Your task to perform on an android device: stop showing notifications on the lock screen Image 0: 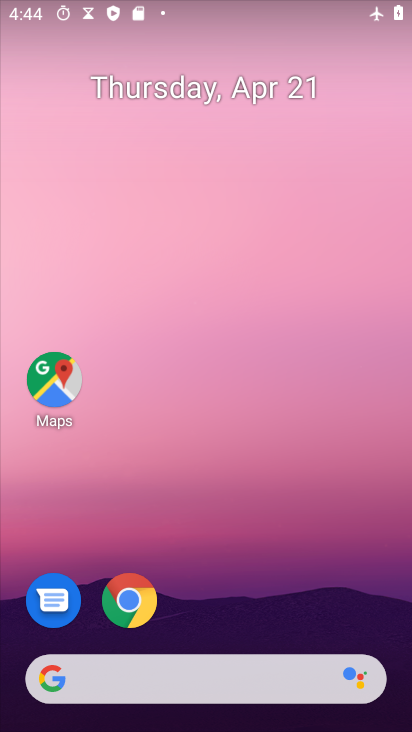
Step 0: drag from (256, 575) to (233, 74)
Your task to perform on an android device: stop showing notifications on the lock screen Image 1: 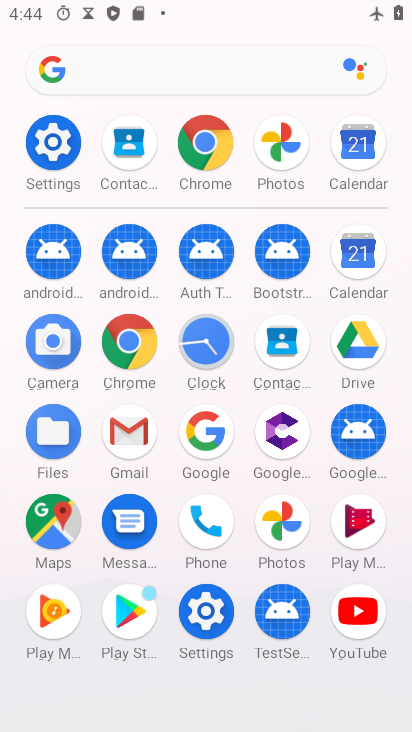
Step 1: click (53, 140)
Your task to perform on an android device: stop showing notifications on the lock screen Image 2: 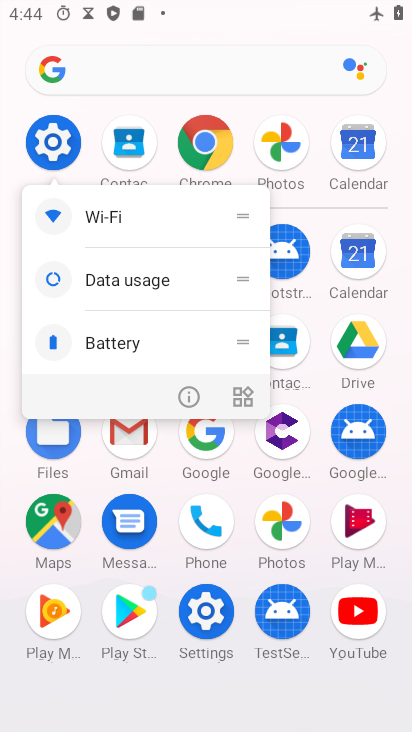
Step 2: click (53, 140)
Your task to perform on an android device: stop showing notifications on the lock screen Image 3: 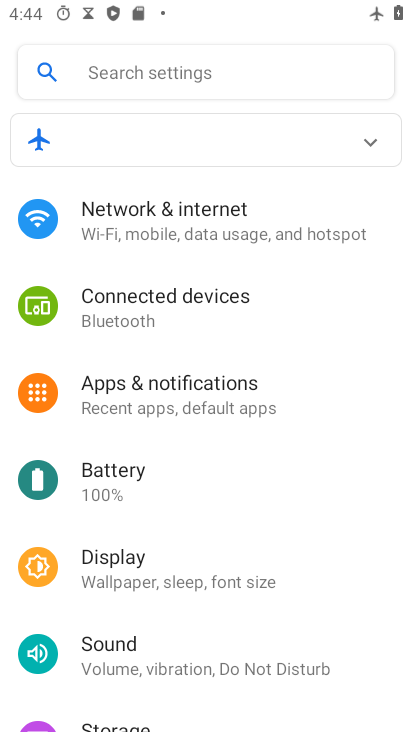
Step 3: click (207, 394)
Your task to perform on an android device: stop showing notifications on the lock screen Image 4: 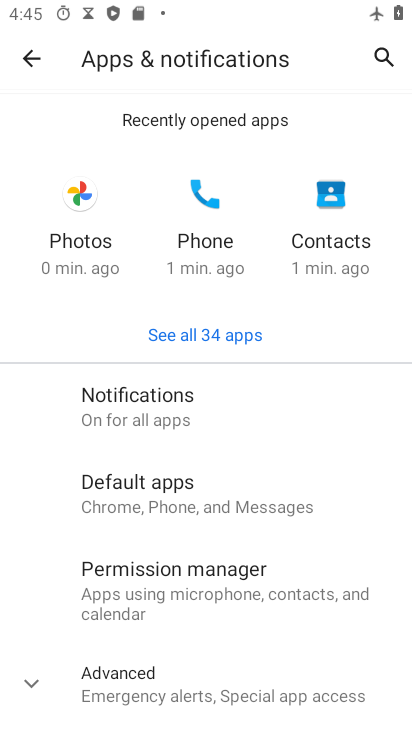
Step 4: click (147, 420)
Your task to perform on an android device: stop showing notifications on the lock screen Image 5: 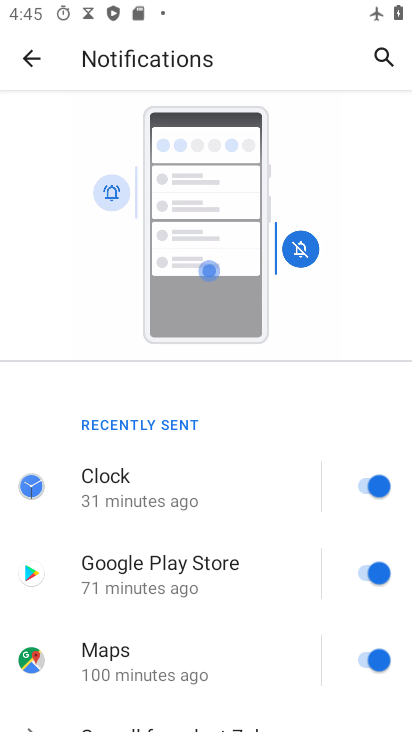
Step 5: drag from (183, 668) to (259, 443)
Your task to perform on an android device: stop showing notifications on the lock screen Image 6: 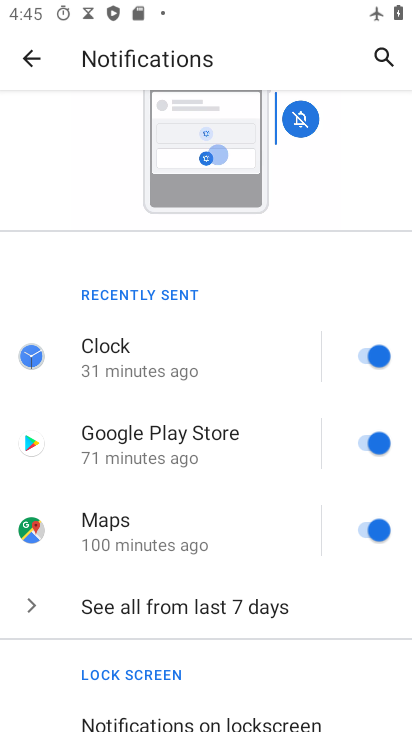
Step 6: drag from (164, 657) to (214, 501)
Your task to perform on an android device: stop showing notifications on the lock screen Image 7: 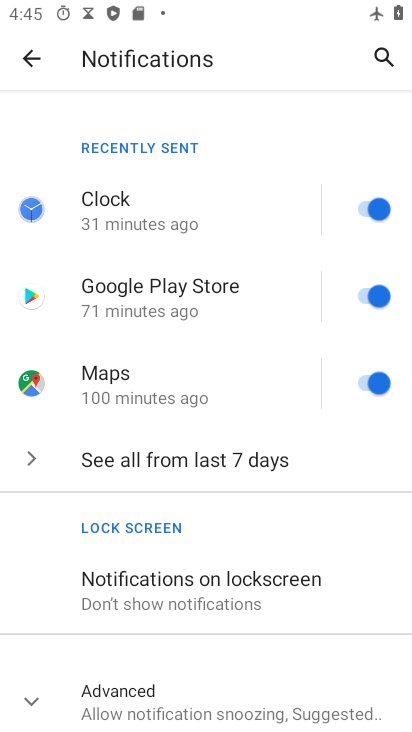
Step 7: click (225, 589)
Your task to perform on an android device: stop showing notifications on the lock screen Image 8: 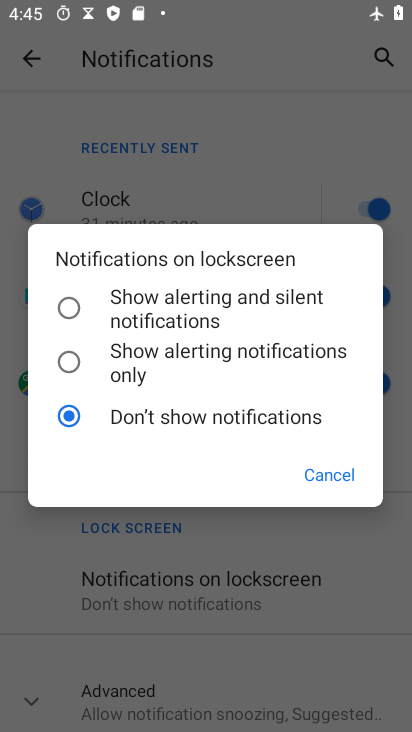
Step 8: click (76, 414)
Your task to perform on an android device: stop showing notifications on the lock screen Image 9: 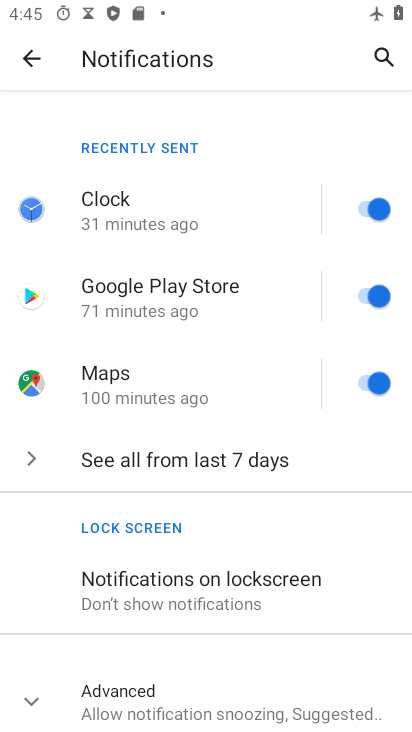
Step 9: task complete